Your task to perform on an android device: Go to calendar. Show me events next week Image 0: 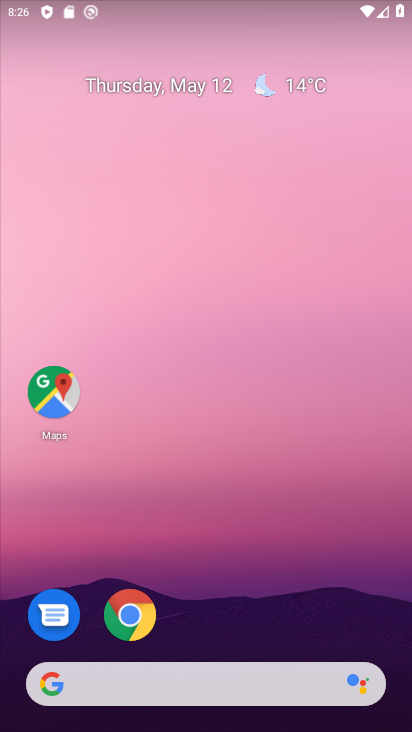
Step 0: drag from (174, 643) to (226, 14)
Your task to perform on an android device: Go to calendar. Show me events next week Image 1: 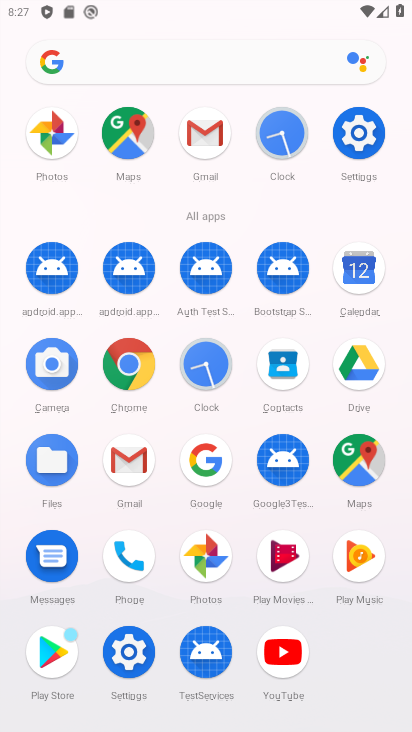
Step 1: click (354, 262)
Your task to perform on an android device: Go to calendar. Show me events next week Image 2: 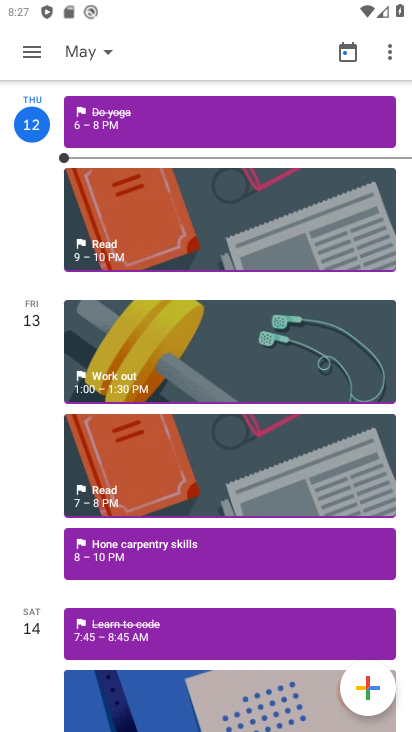
Step 2: click (26, 57)
Your task to perform on an android device: Go to calendar. Show me events next week Image 3: 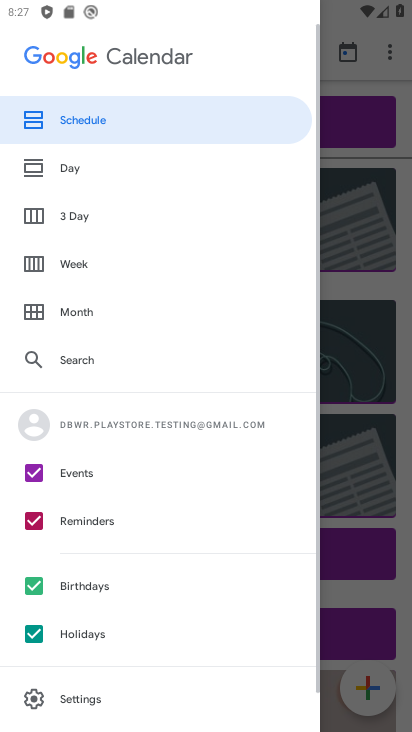
Step 3: click (70, 276)
Your task to perform on an android device: Go to calendar. Show me events next week Image 4: 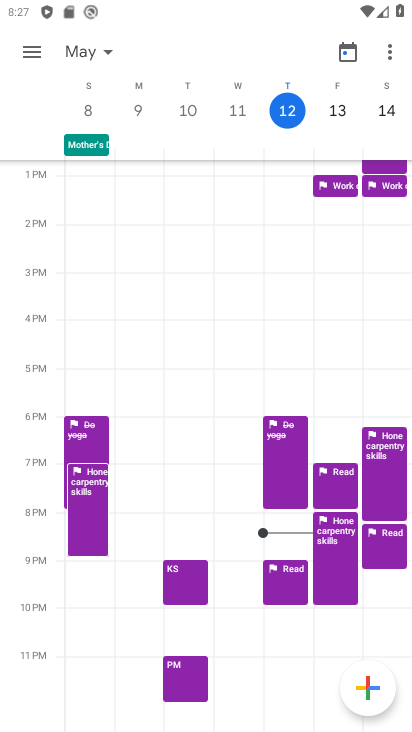
Step 4: task complete